Your task to perform on an android device: Open ESPN.com Image 0: 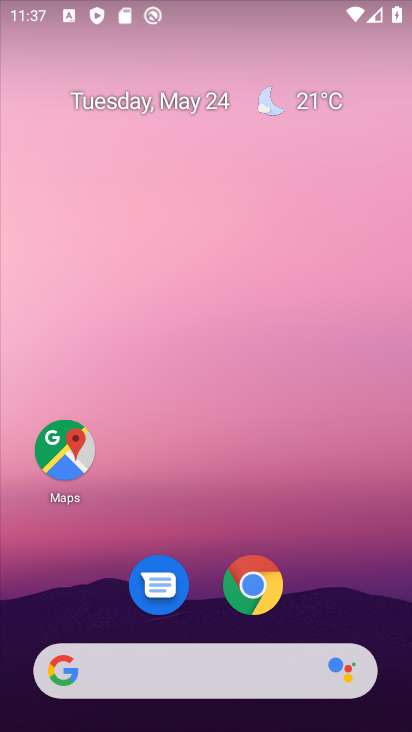
Step 0: click (292, 668)
Your task to perform on an android device: Open ESPN.com Image 1: 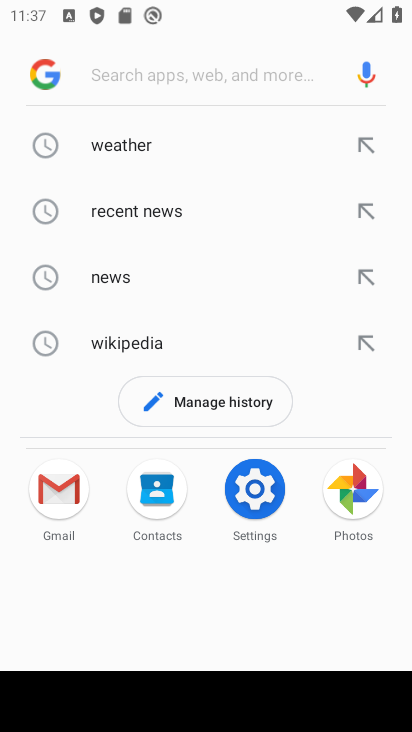
Step 1: type "espn.com"
Your task to perform on an android device: Open ESPN.com Image 2: 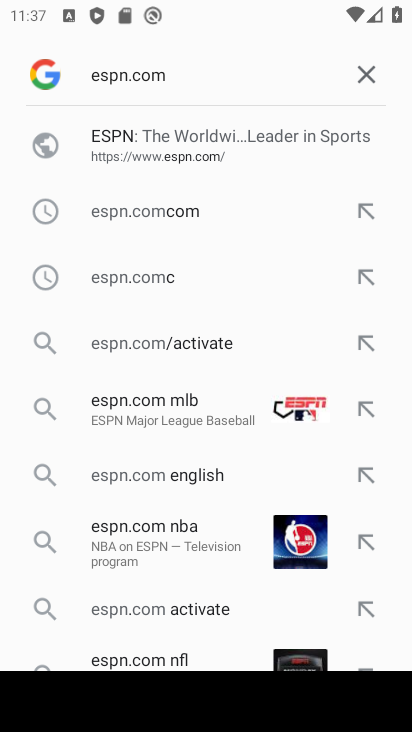
Step 2: click (123, 144)
Your task to perform on an android device: Open ESPN.com Image 3: 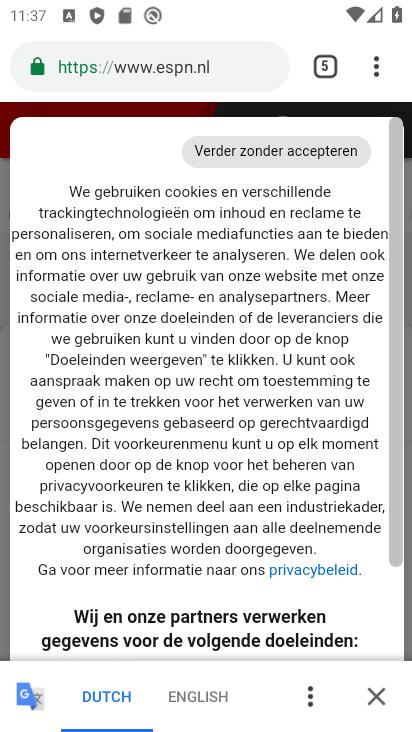
Step 3: task complete